Your task to perform on an android device: delete a single message in the gmail app Image 0: 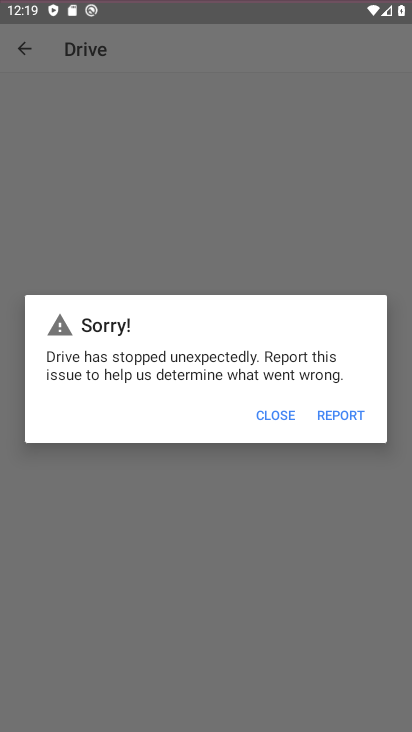
Step 0: click (131, 622)
Your task to perform on an android device: delete a single message in the gmail app Image 1: 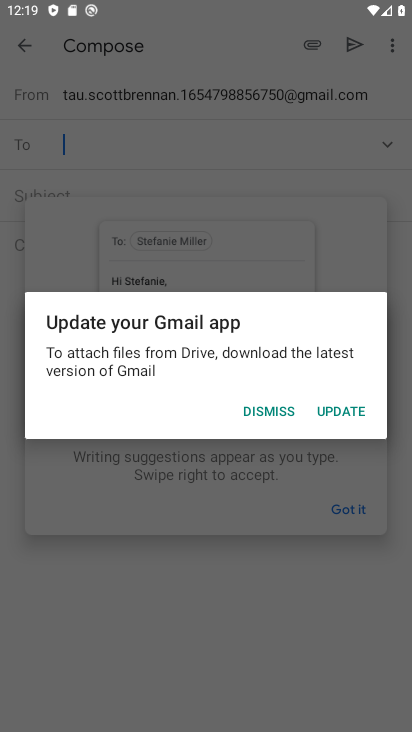
Step 1: press home button
Your task to perform on an android device: delete a single message in the gmail app Image 2: 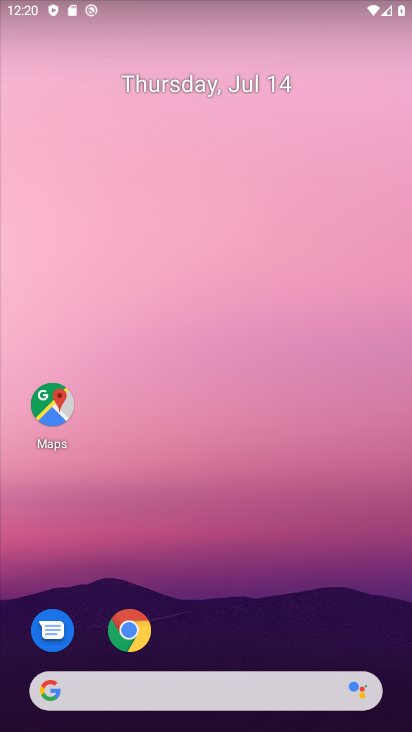
Step 2: drag from (256, 628) to (197, 76)
Your task to perform on an android device: delete a single message in the gmail app Image 3: 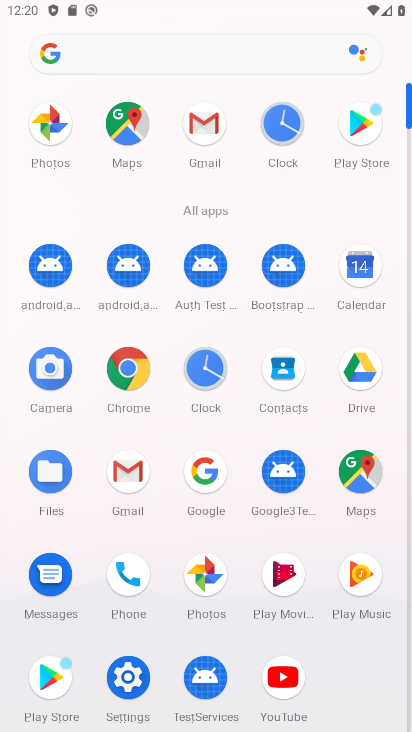
Step 3: click (208, 132)
Your task to perform on an android device: delete a single message in the gmail app Image 4: 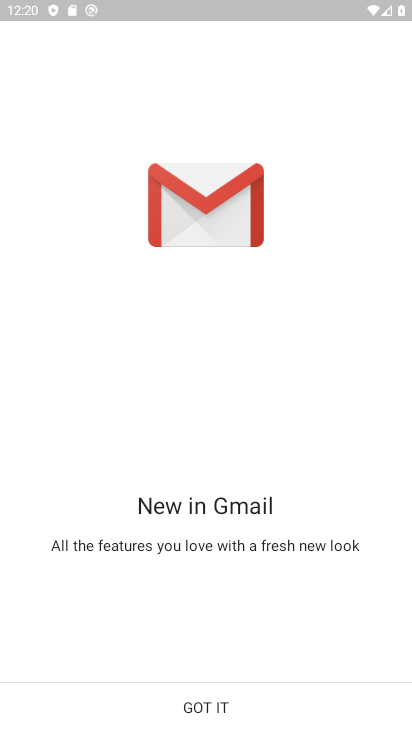
Step 4: click (224, 719)
Your task to perform on an android device: delete a single message in the gmail app Image 5: 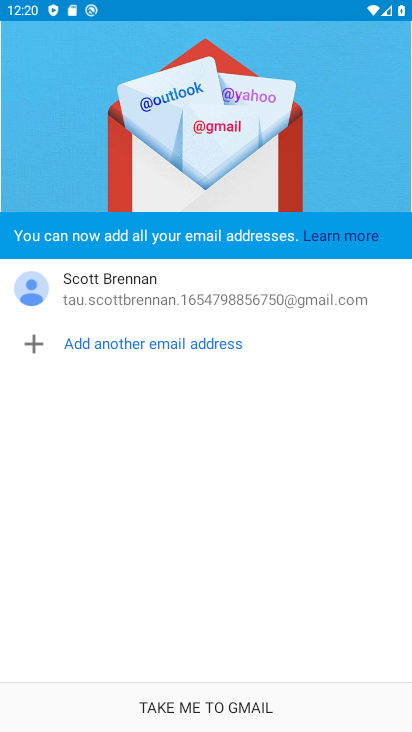
Step 5: click (214, 711)
Your task to perform on an android device: delete a single message in the gmail app Image 6: 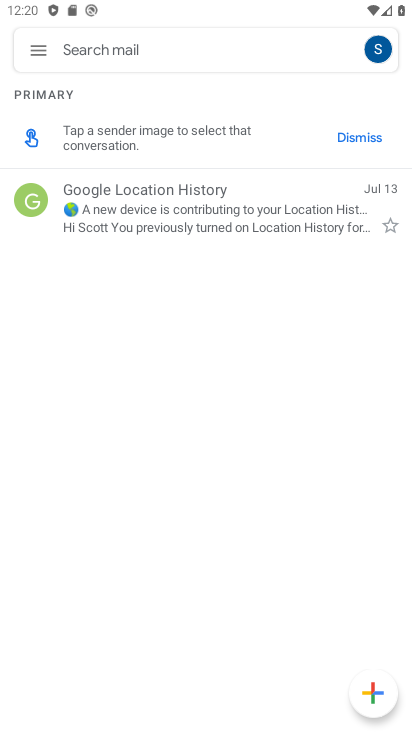
Step 6: click (234, 194)
Your task to perform on an android device: delete a single message in the gmail app Image 7: 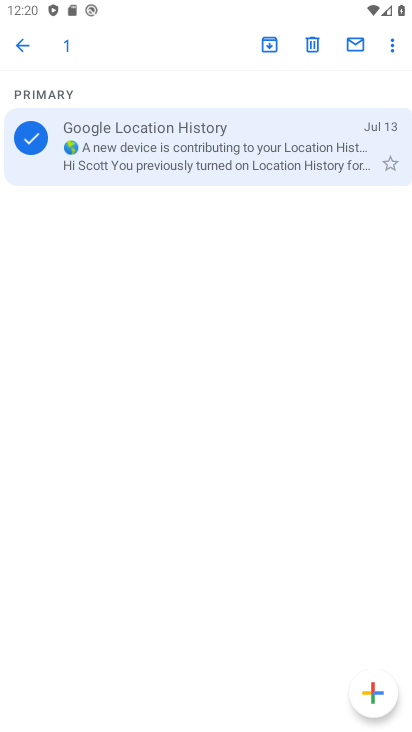
Step 7: click (314, 39)
Your task to perform on an android device: delete a single message in the gmail app Image 8: 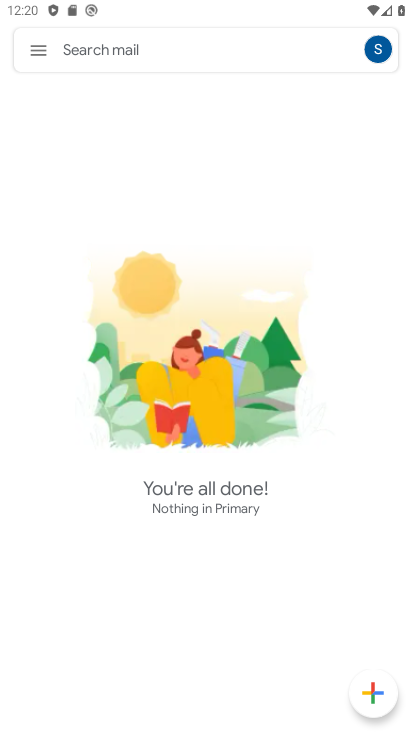
Step 8: task complete